Your task to perform on an android device: see creations saved in the google photos Image 0: 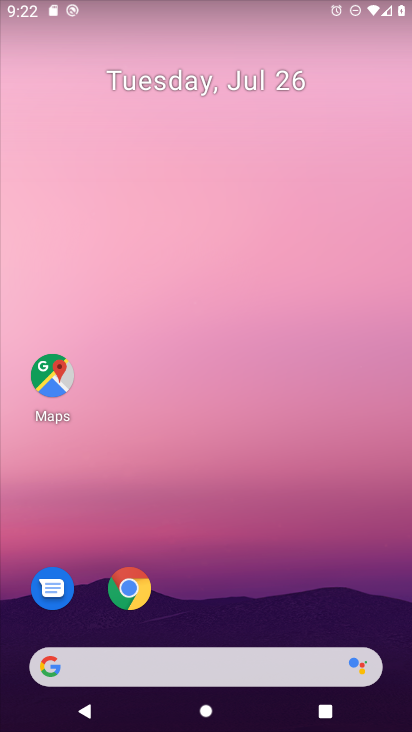
Step 0: drag from (210, 619) to (336, 101)
Your task to perform on an android device: see creations saved in the google photos Image 1: 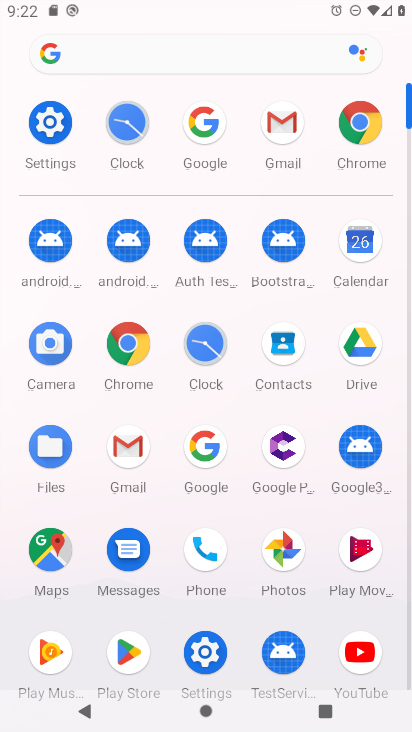
Step 1: click (285, 560)
Your task to perform on an android device: see creations saved in the google photos Image 2: 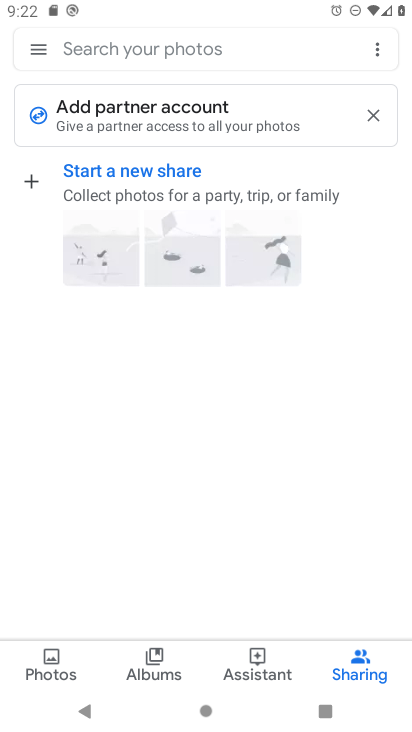
Step 2: click (62, 679)
Your task to perform on an android device: see creations saved in the google photos Image 3: 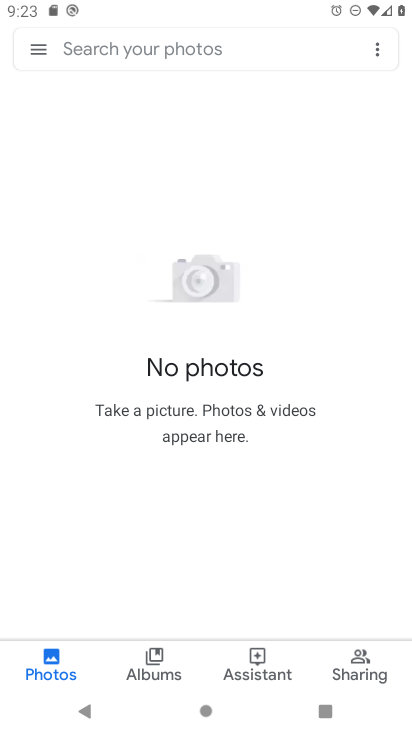
Step 3: task complete